Your task to perform on an android device: Open Maps and search for coffee Image 0: 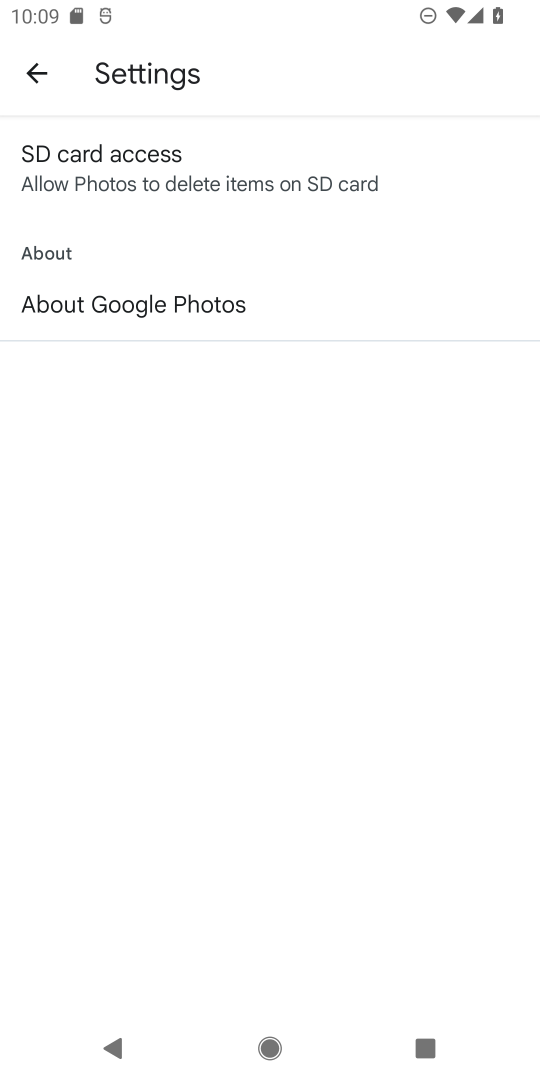
Step 0: press home button
Your task to perform on an android device: Open Maps and search for coffee Image 1: 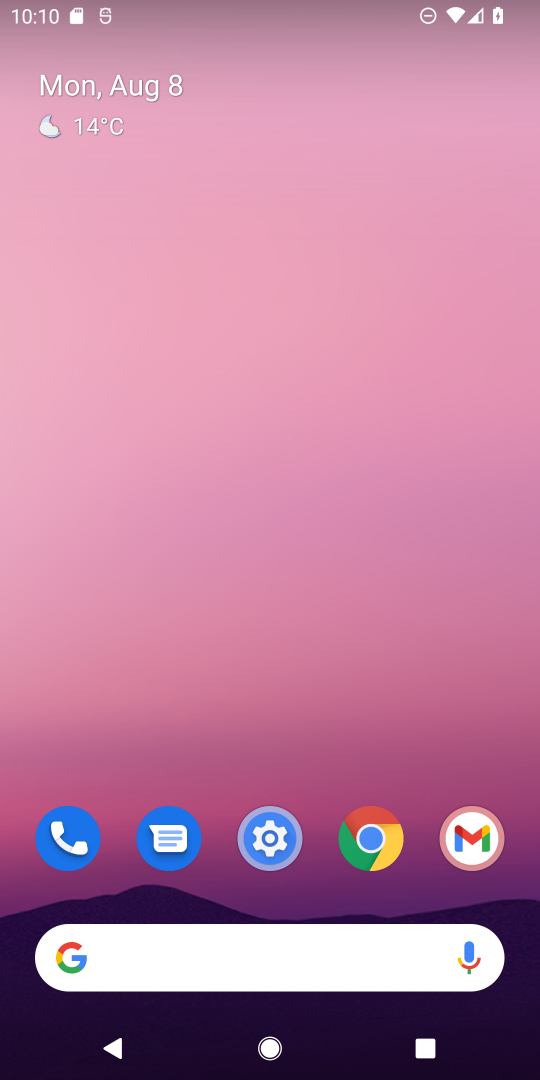
Step 1: drag from (322, 879) to (323, 276)
Your task to perform on an android device: Open Maps and search for coffee Image 2: 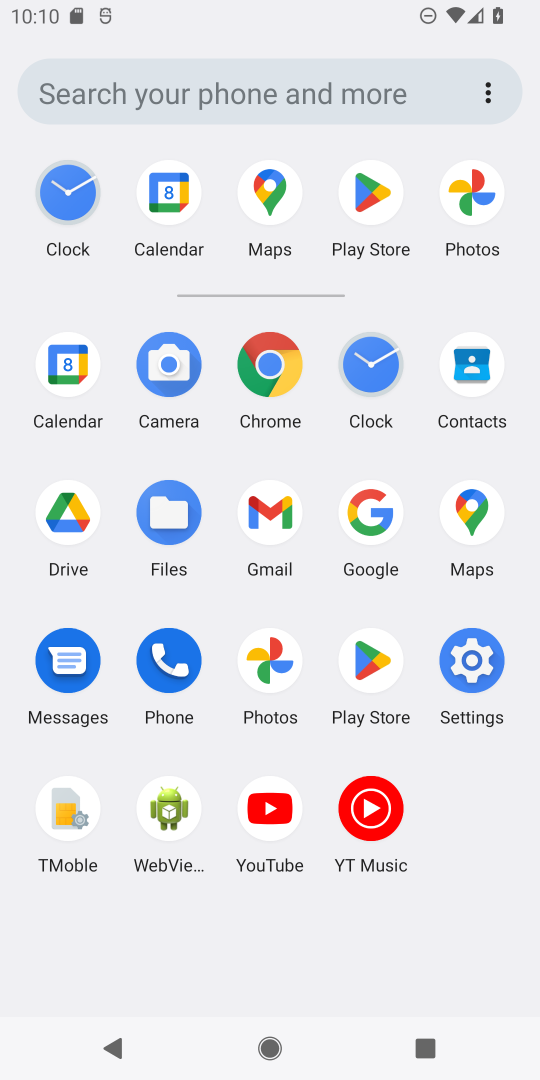
Step 2: click (470, 514)
Your task to perform on an android device: Open Maps and search for coffee Image 3: 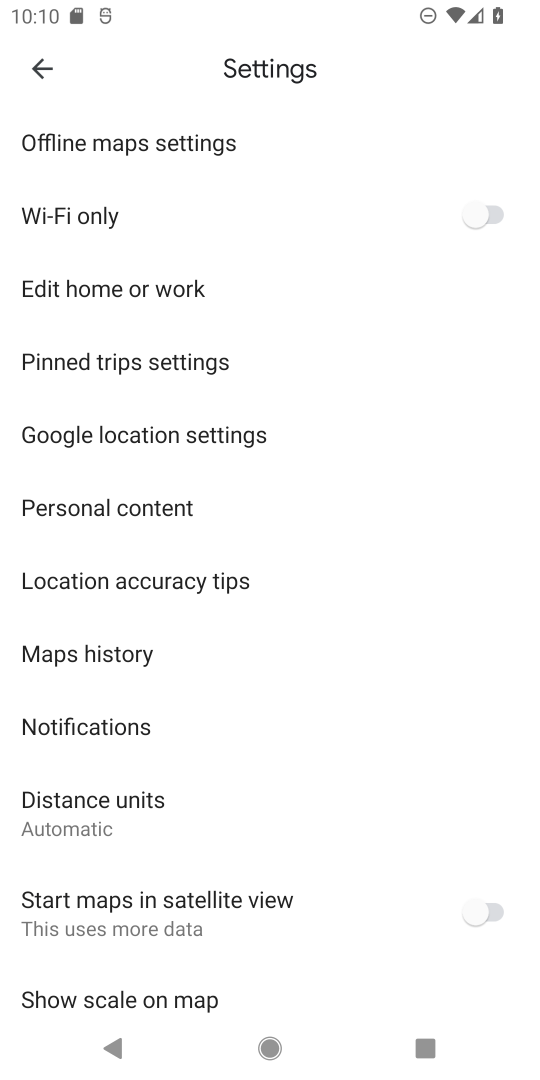
Step 3: click (48, 64)
Your task to perform on an android device: Open Maps and search for coffee Image 4: 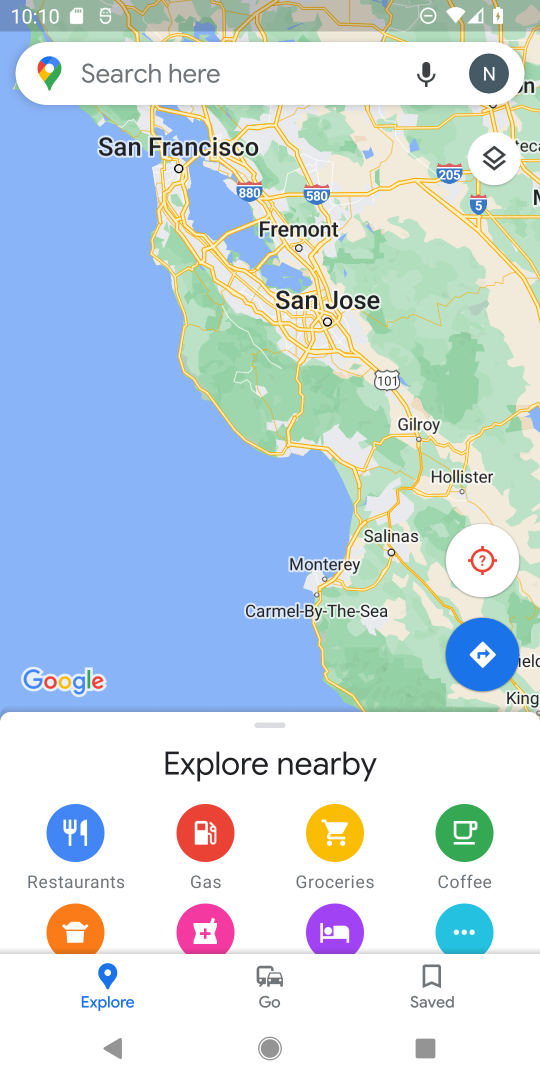
Step 4: click (234, 57)
Your task to perform on an android device: Open Maps and search for coffee Image 5: 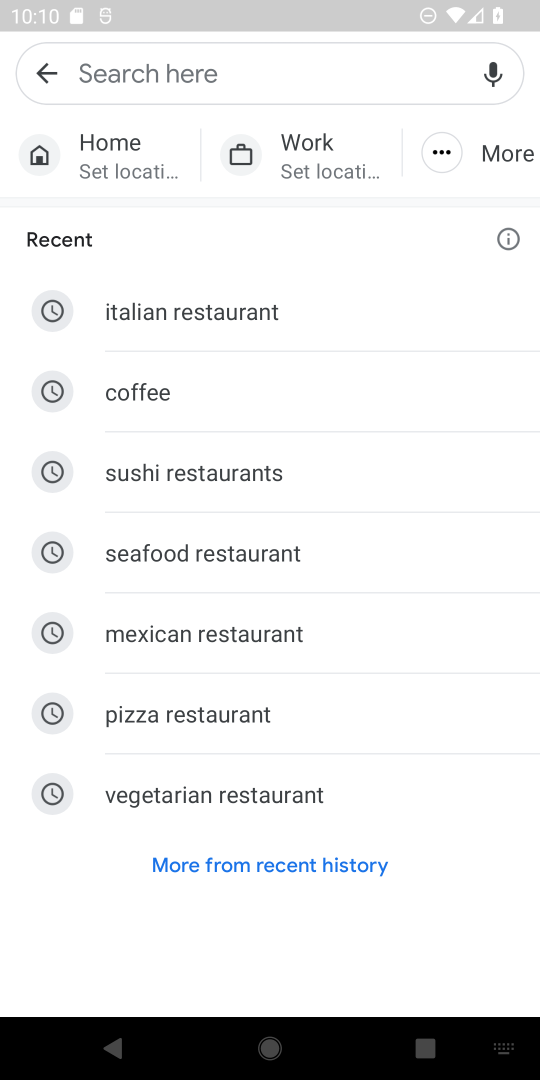
Step 5: click (145, 387)
Your task to perform on an android device: Open Maps and search for coffee Image 6: 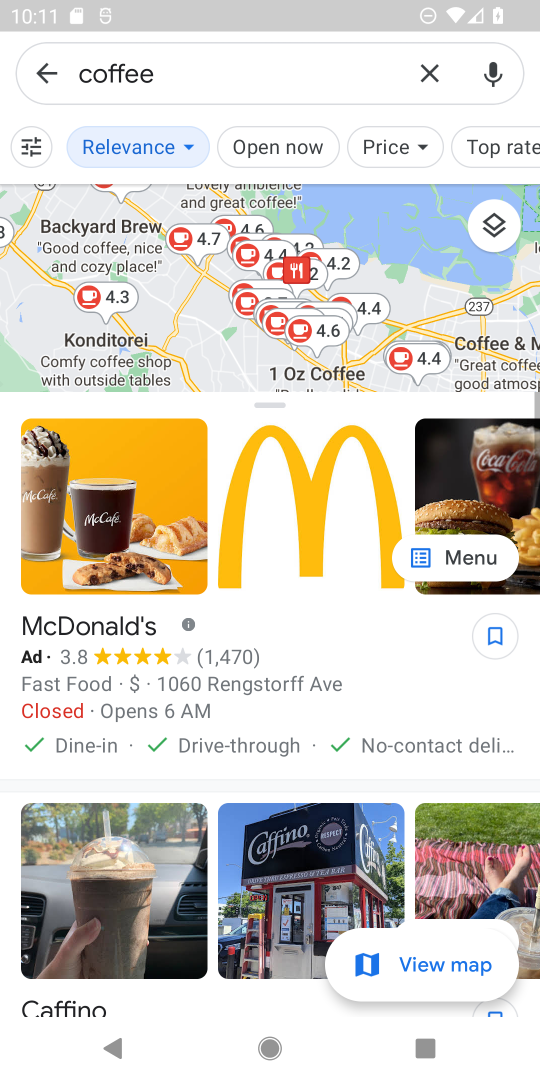
Step 6: task complete